Your task to perform on an android device: Open network settings Image 0: 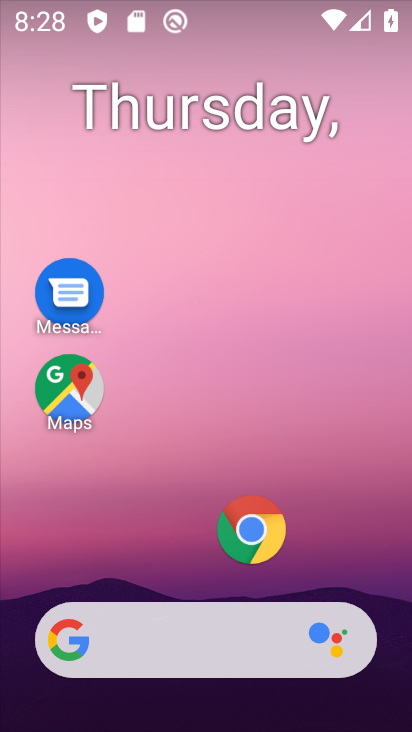
Step 0: drag from (244, 8) to (221, 476)
Your task to perform on an android device: Open network settings Image 1: 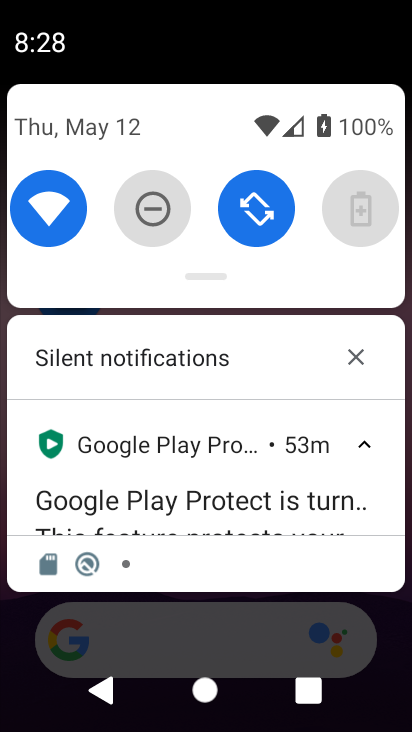
Step 1: drag from (280, 153) to (290, 648)
Your task to perform on an android device: Open network settings Image 2: 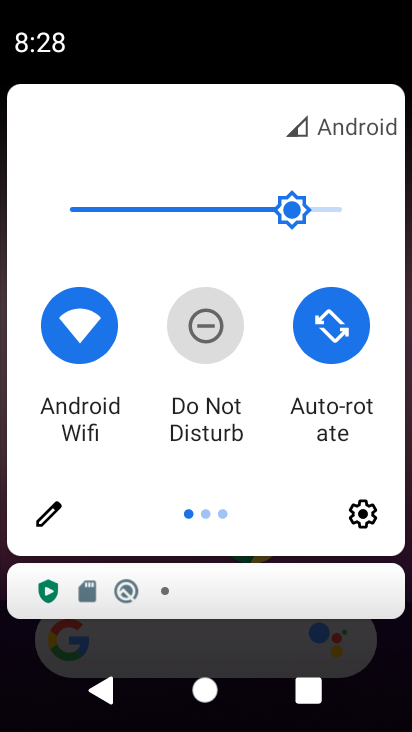
Step 2: drag from (359, 465) to (79, 463)
Your task to perform on an android device: Open network settings Image 3: 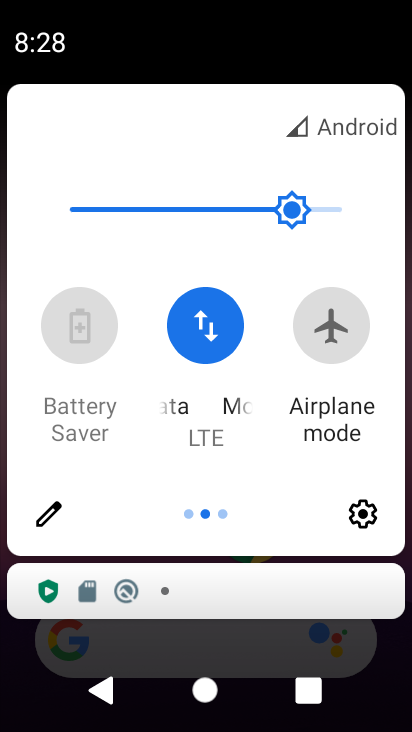
Step 3: click (189, 348)
Your task to perform on an android device: Open network settings Image 4: 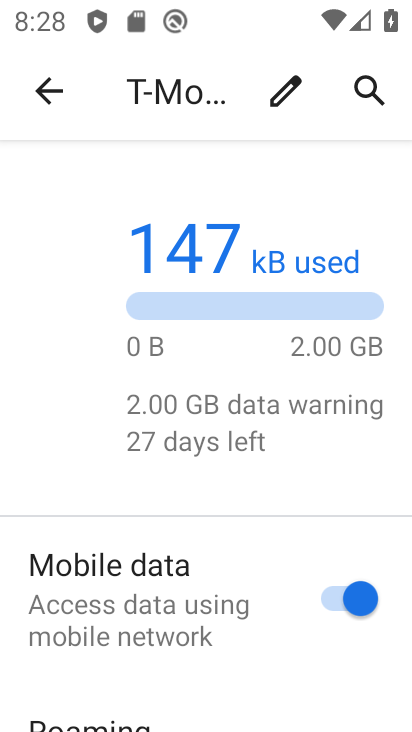
Step 4: task complete